Your task to perform on an android device: Search for Mexican restaurants on Maps Image 0: 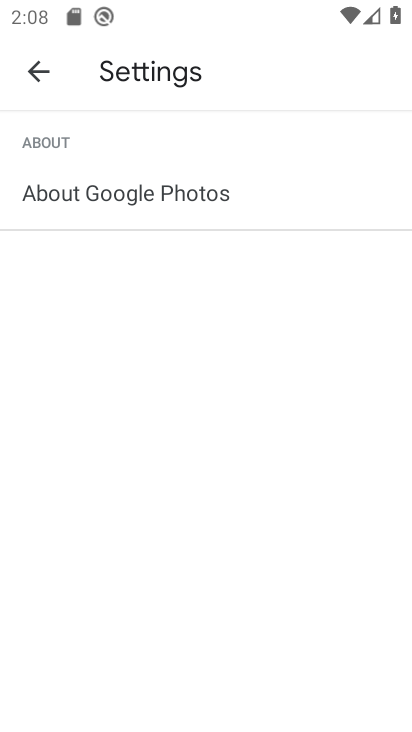
Step 0: press home button
Your task to perform on an android device: Search for Mexican restaurants on Maps Image 1: 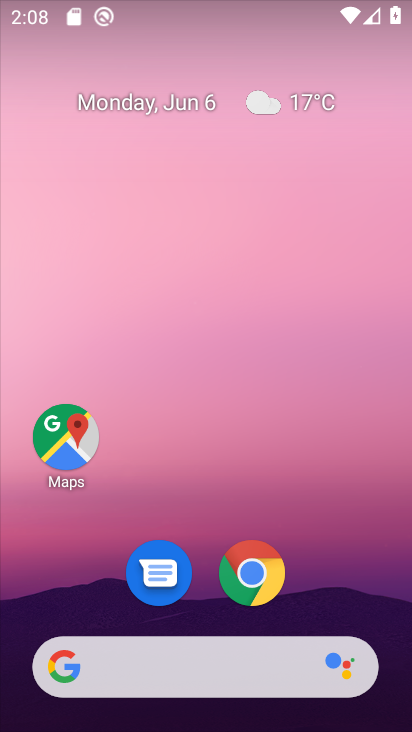
Step 1: drag from (383, 635) to (264, 77)
Your task to perform on an android device: Search for Mexican restaurants on Maps Image 2: 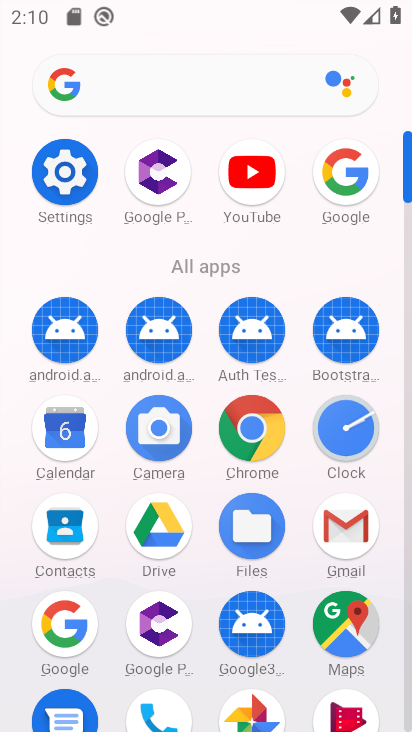
Step 2: click (340, 608)
Your task to perform on an android device: Search for Mexican restaurants on Maps Image 3: 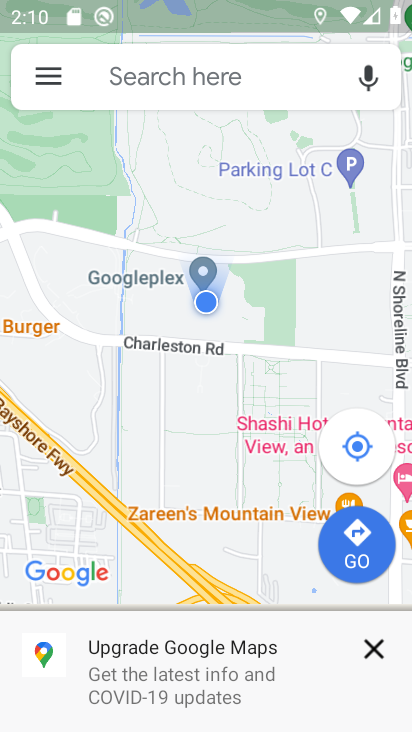
Step 3: click (129, 69)
Your task to perform on an android device: Search for Mexican restaurants on Maps Image 4: 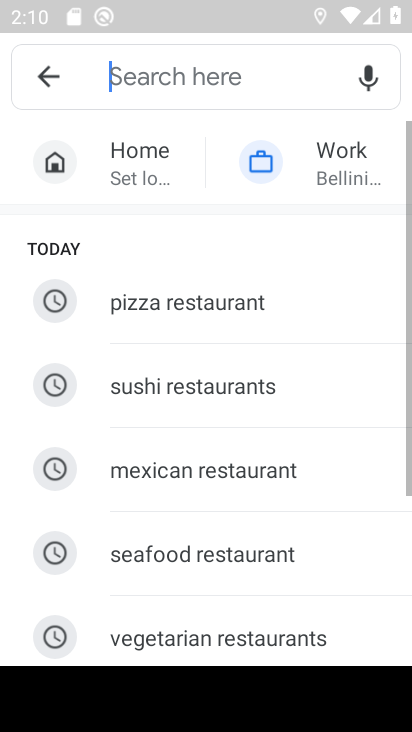
Step 4: click (191, 486)
Your task to perform on an android device: Search for Mexican restaurants on Maps Image 5: 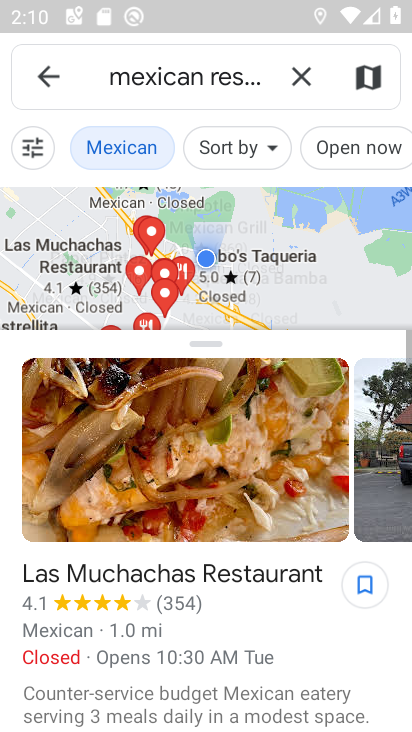
Step 5: task complete